Your task to perform on an android device: turn pop-ups on in chrome Image 0: 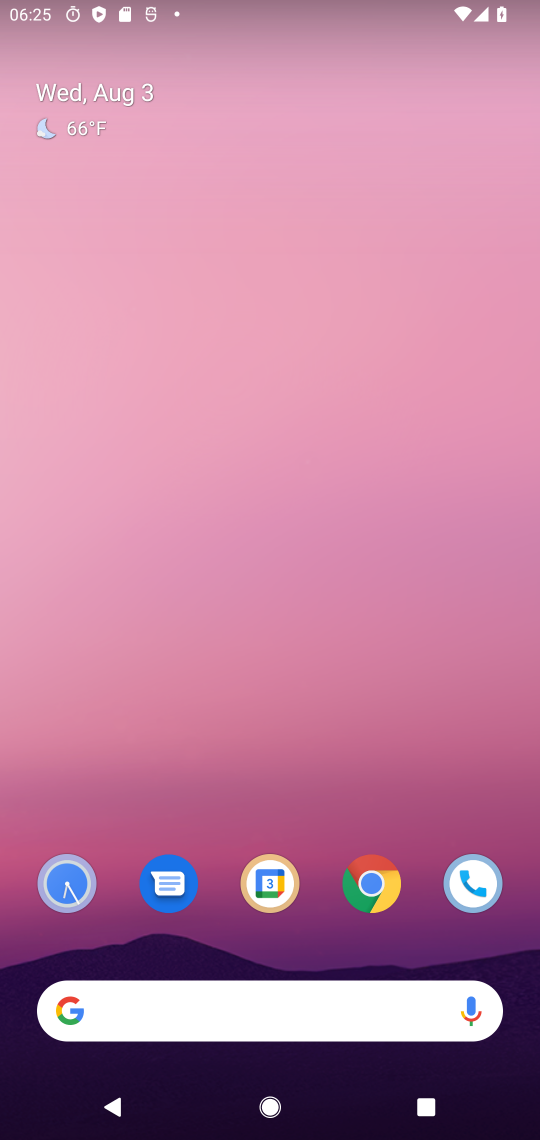
Step 0: click (354, 884)
Your task to perform on an android device: turn pop-ups on in chrome Image 1: 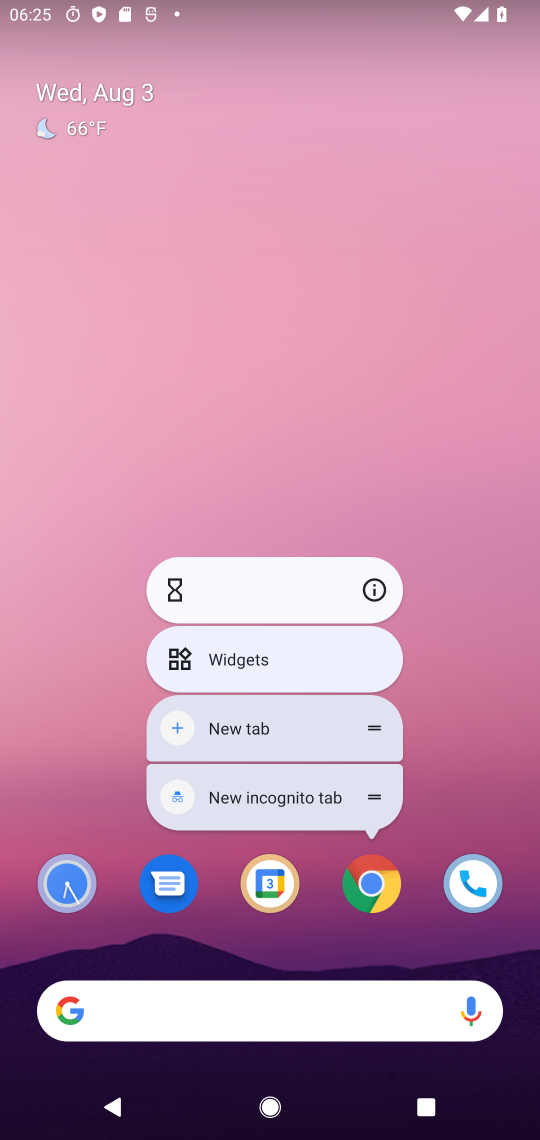
Step 1: click (365, 888)
Your task to perform on an android device: turn pop-ups on in chrome Image 2: 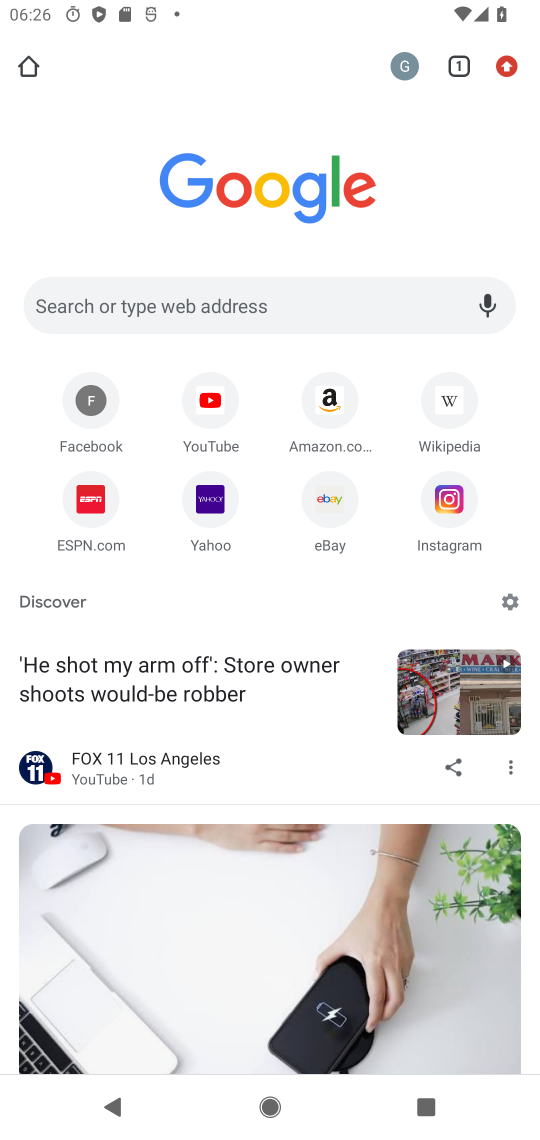
Step 2: click (512, 60)
Your task to perform on an android device: turn pop-ups on in chrome Image 3: 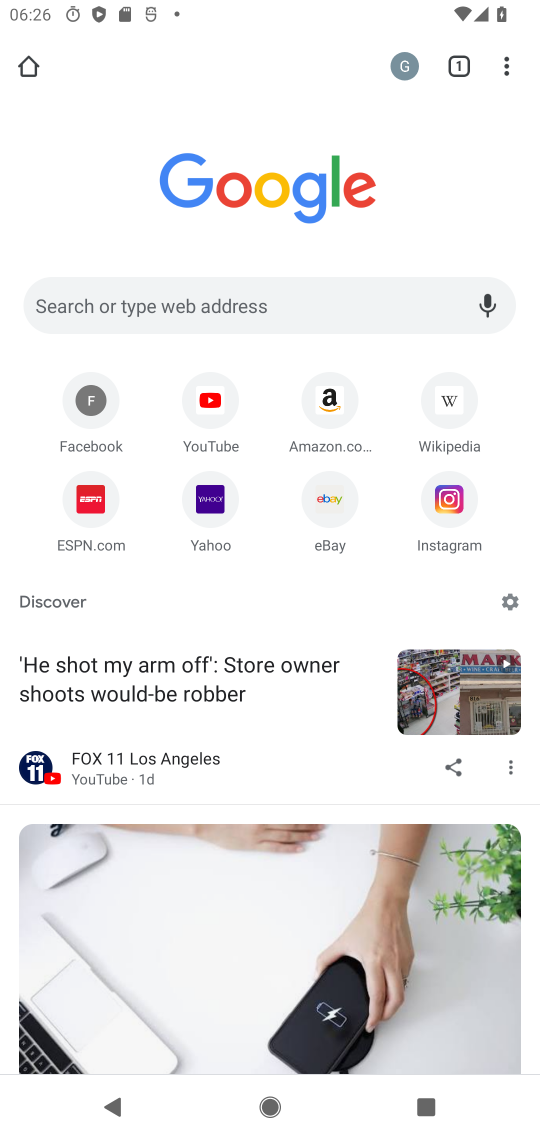
Step 3: click (511, 70)
Your task to perform on an android device: turn pop-ups on in chrome Image 4: 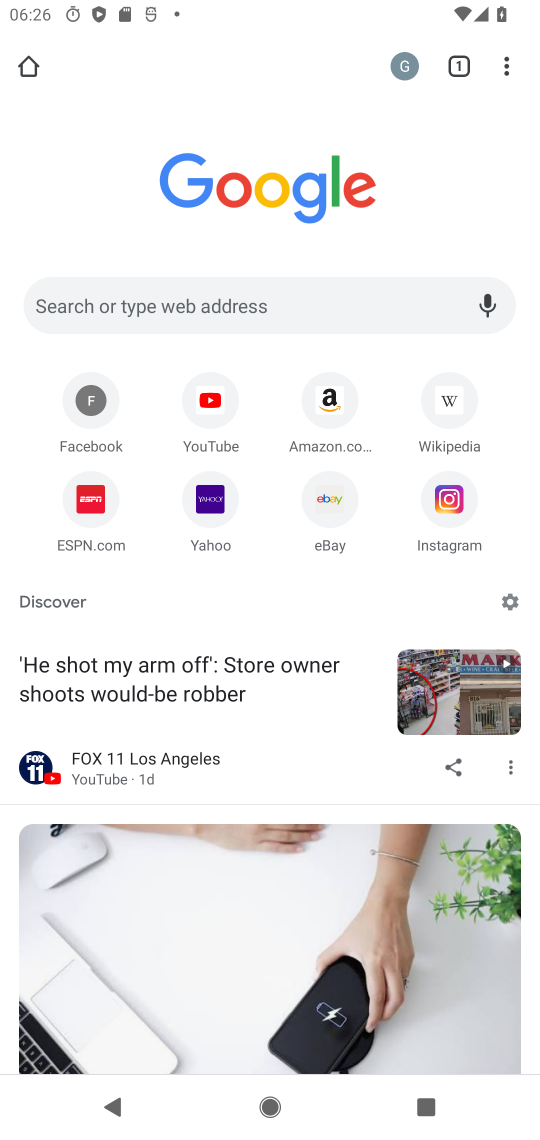
Step 4: click (504, 63)
Your task to perform on an android device: turn pop-ups on in chrome Image 5: 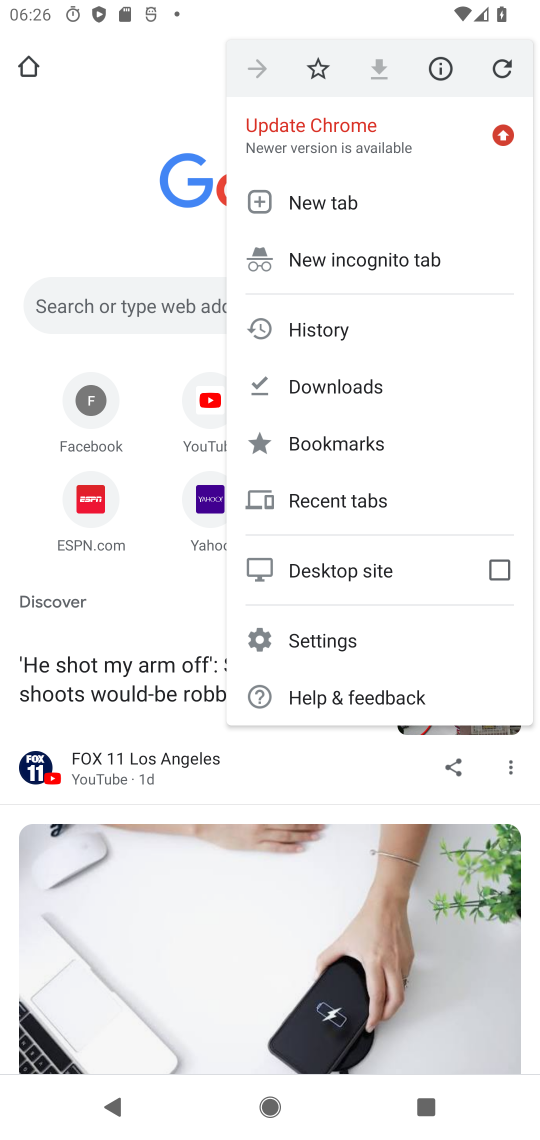
Step 5: click (295, 638)
Your task to perform on an android device: turn pop-ups on in chrome Image 6: 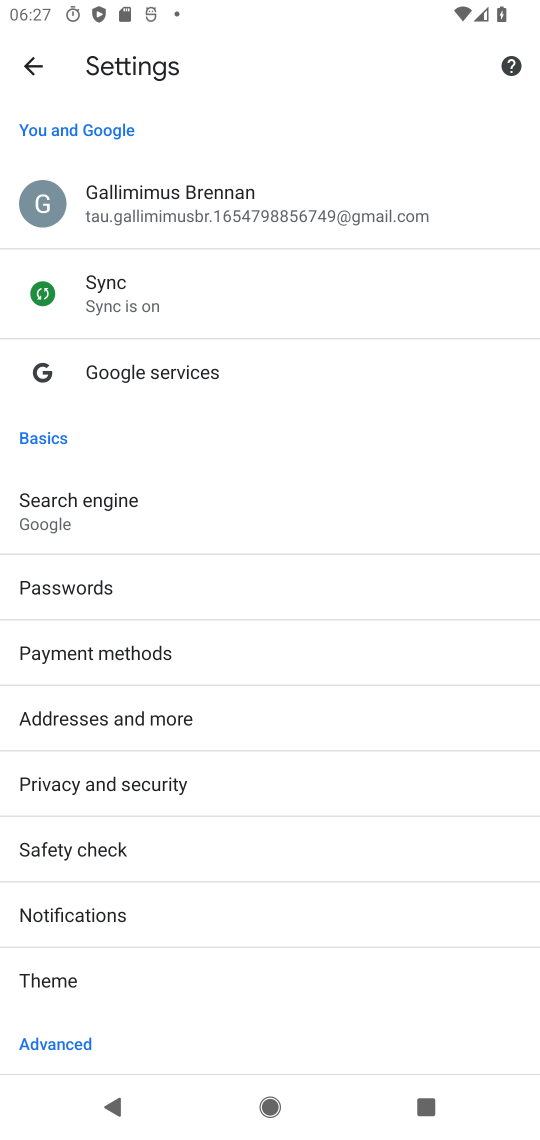
Step 6: drag from (123, 991) to (247, 264)
Your task to perform on an android device: turn pop-ups on in chrome Image 7: 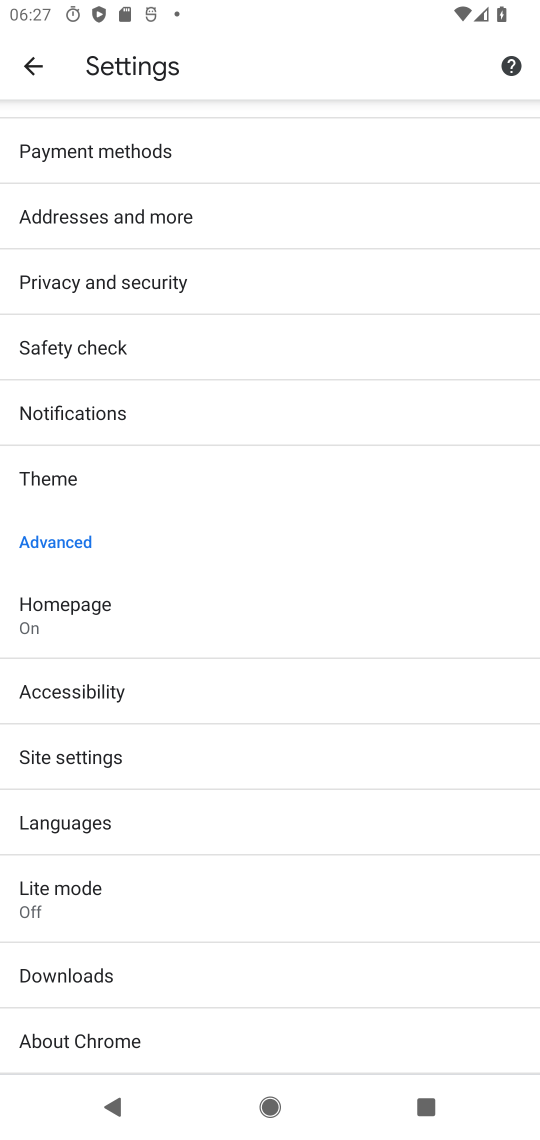
Step 7: click (64, 754)
Your task to perform on an android device: turn pop-ups on in chrome Image 8: 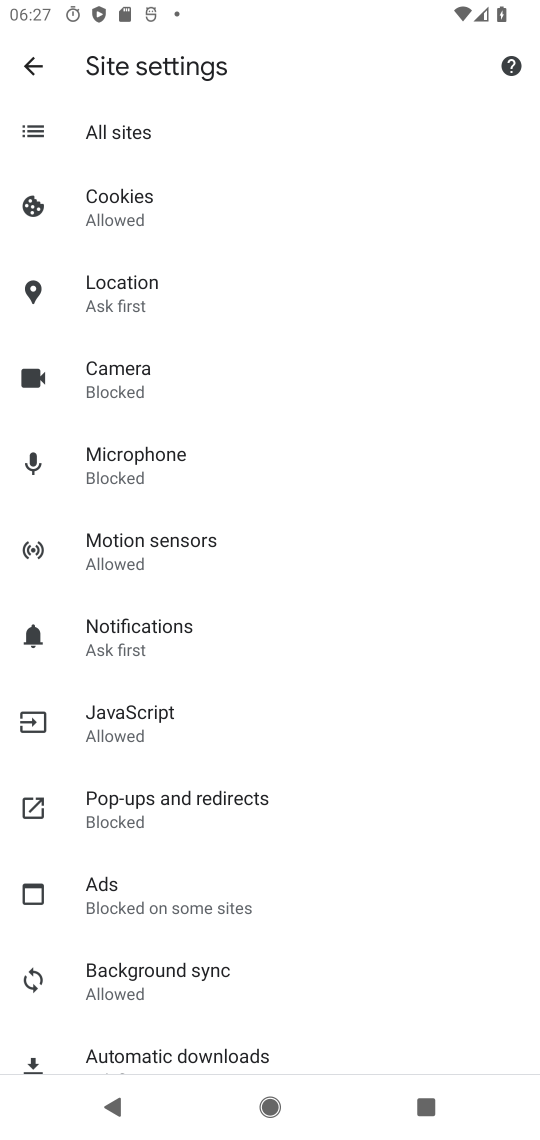
Step 8: click (179, 822)
Your task to perform on an android device: turn pop-ups on in chrome Image 9: 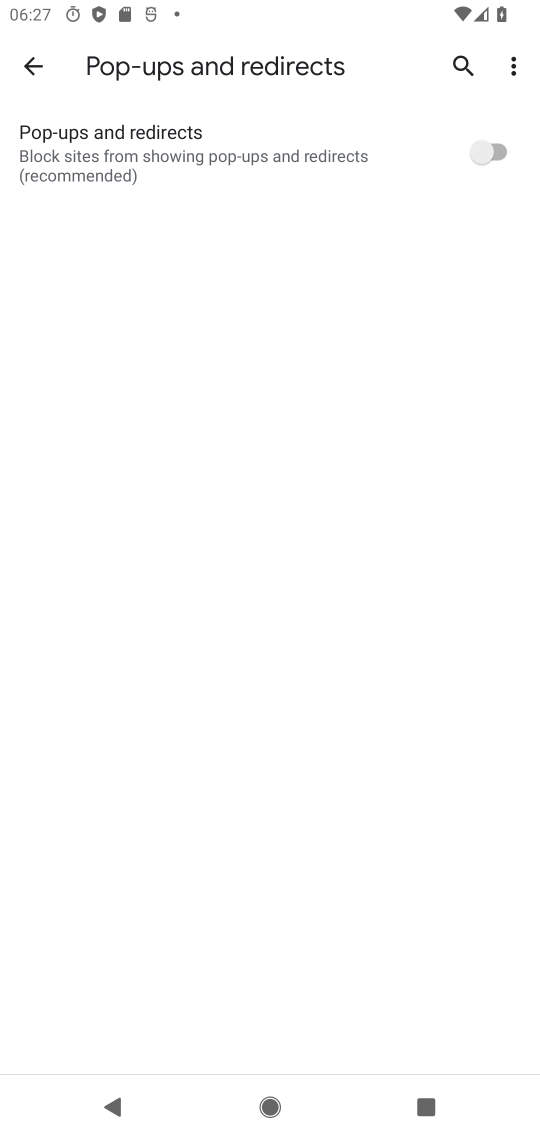
Step 9: click (498, 142)
Your task to perform on an android device: turn pop-ups on in chrome Image 10: 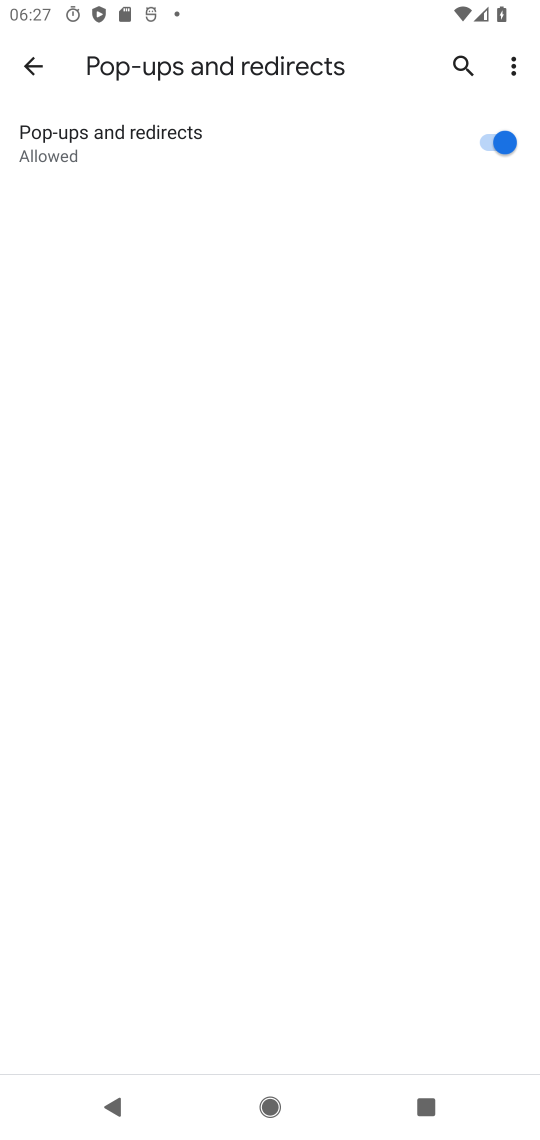
Step 10: task complete